Your task to perform on an android device: Go to wifi settings Image 0: 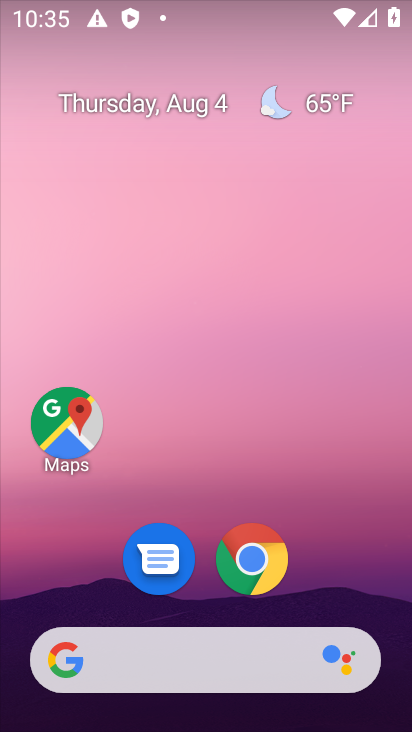
Step 0: drag from (232, 664) to (174, 47)
Your task to perform on an android device: Go to wifi settings Image 1: 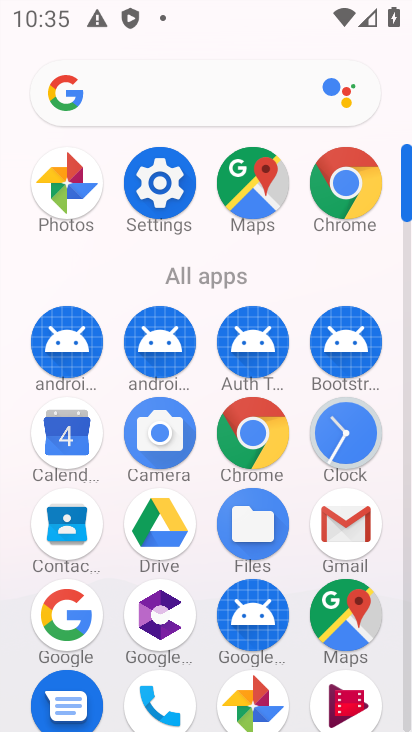
Step 1: click (178, 171)
Your task to perform on an android device: Go to wifi settings Image 2: 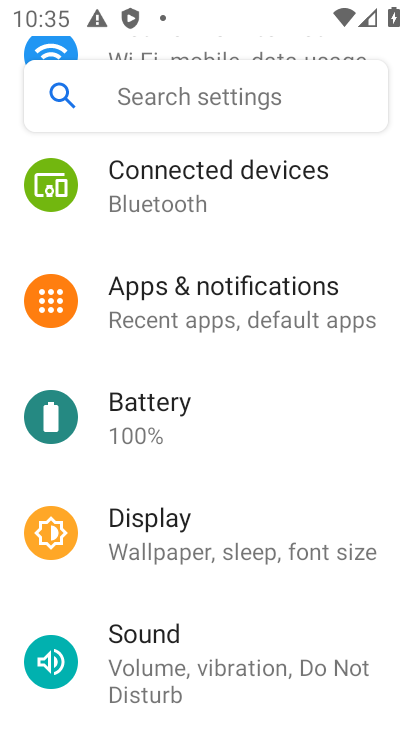
Step 2: drag from (209, 164) to (204, 562)
Your task to perform on an android device: Go to wifi settings Image 3: 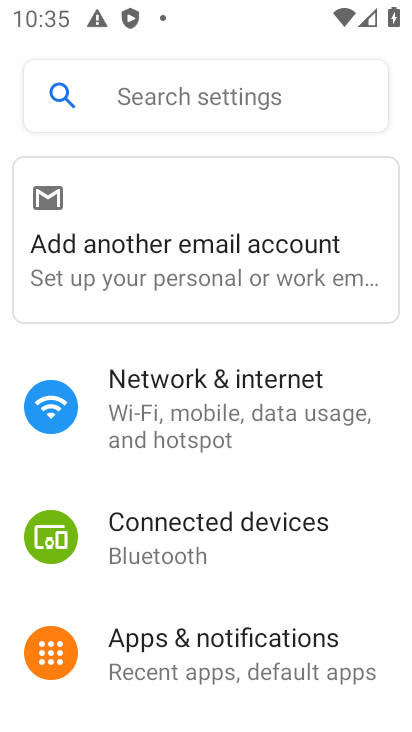
Step 3: click (184, 408)
Your task to perform on an android device: Go to wifi settings Image 4: 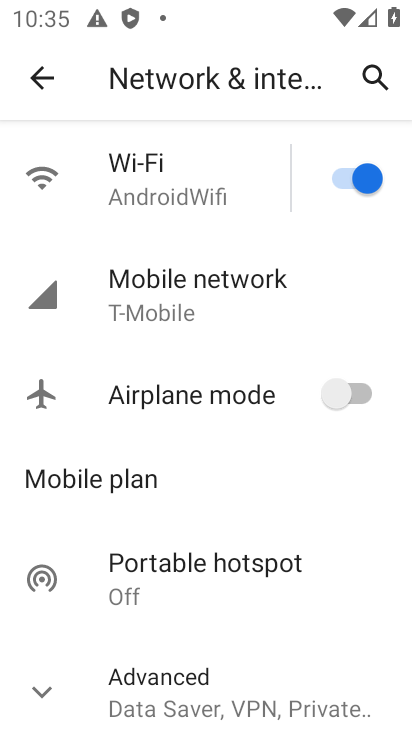
Step 4: click (141, 194)
Your task to perform on an android device: Go to wifi settings Image 5: 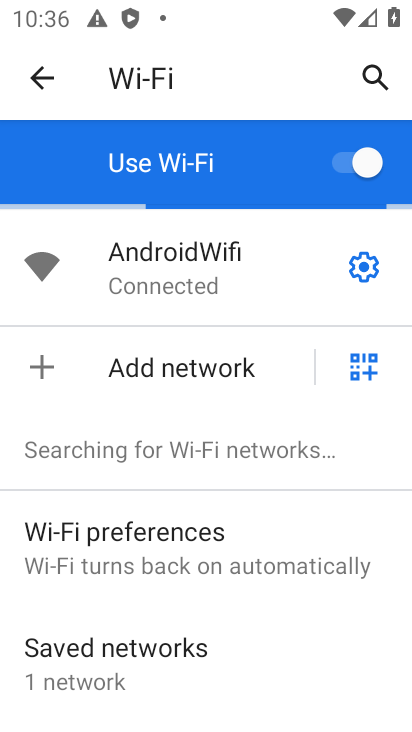
Step 5: task complete